Your task to perform on an android device: Show me the alarms in the clock app Image 0: 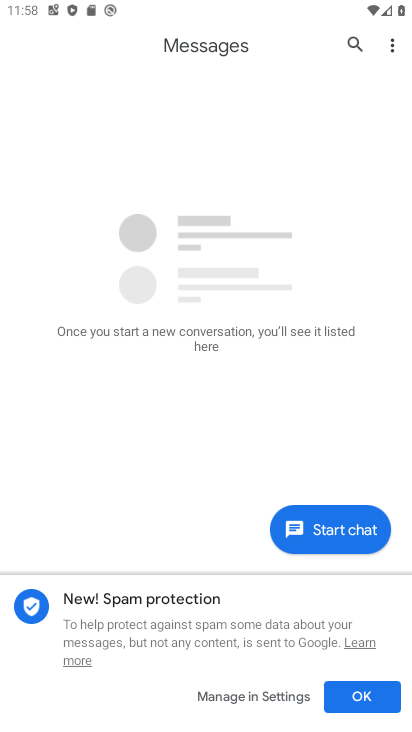
Step 0: press home button
Your task to perform on an android device: Show me the alarms in the clock app Image 1: 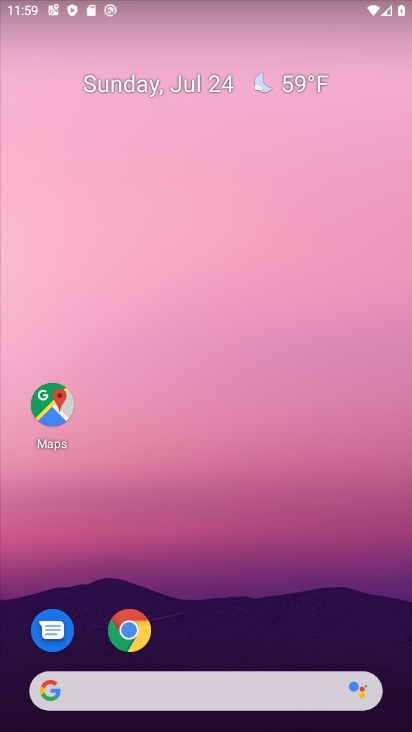
Step 1: drag from (184, 693) to (207, 303)
Your task to perform on an android device: Show me the alarms in the clock app Image 2: 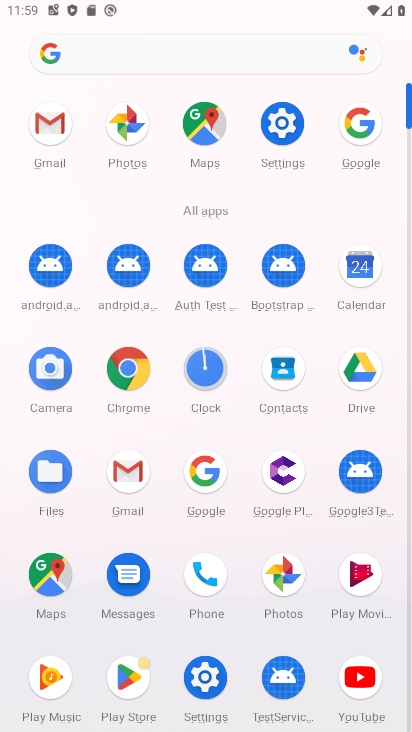
Step 2: click (212, 374)
Your task to perform on an android device: Show me the alarms in the clock app Image 3: 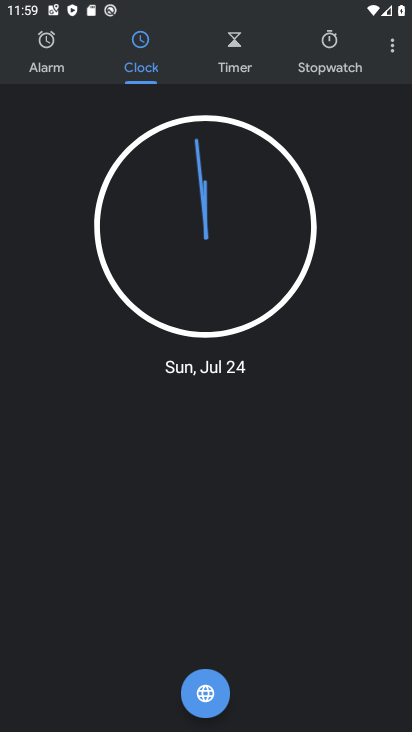
Step 3: click (51, 58)
Your task to perform on an android device: Show me the alarms in the clock app Image 4: 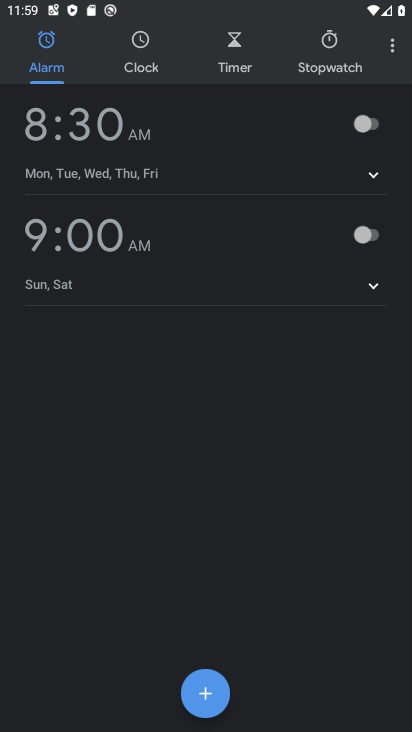
Step 4: task complete